Your task to perform on an android device: Open Google Chrome and open the bookmarks view Image 0: 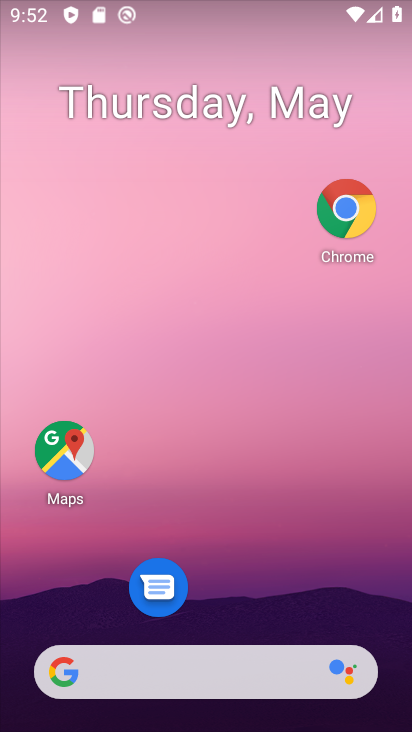
Step 0: click (350, 183)
Your task to perform on an android device: Open Google Chrome and open the bookmarks view Image 1: 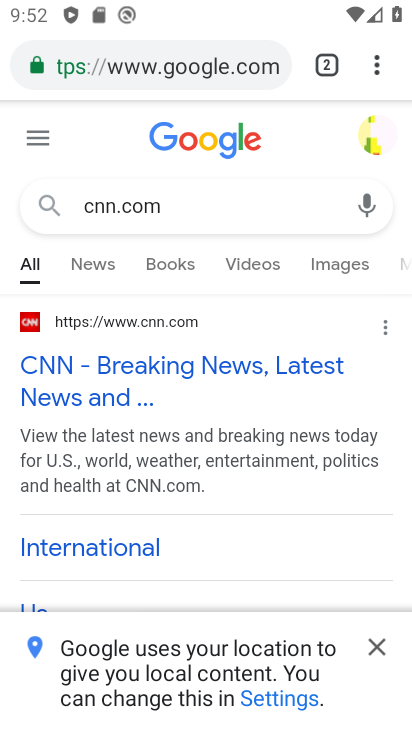
Step 1: click (366, 72)
Your task to perform on an android device: Open Google Chrome and open the bookmarks view Image 2: 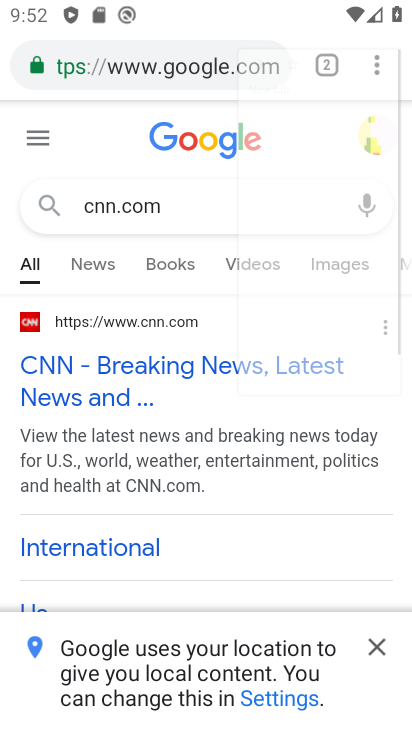
Step 2: click (366, 72)
Your task to perform on an android device: Open Google Chrome and open the bookmarks view Image 3: 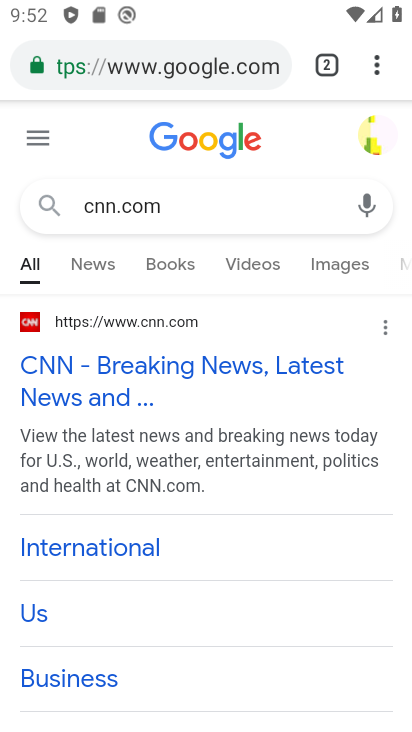
Step 3: click (378, 59)
Your task to perform on an android device: Open Google Chrome and open the bookmarks view Image 4: 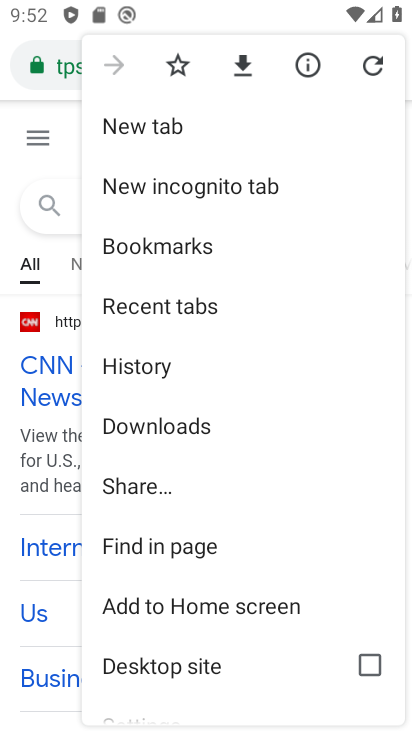
Step 4: click (214, 244)
Your task to perform on an android device: Open Google Chrome and open the bookmarks view Image 5: 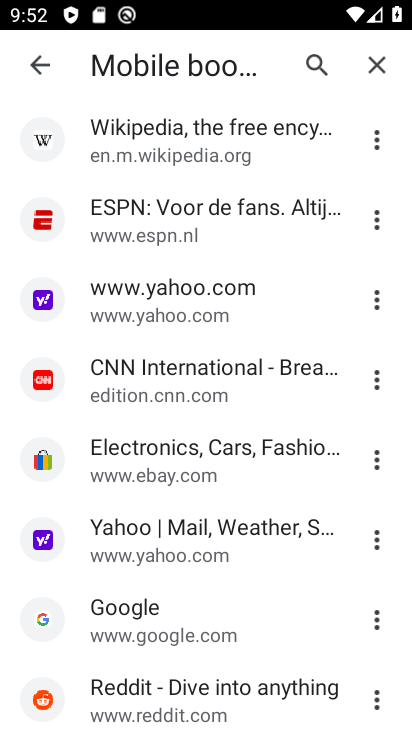
Step 5: task complete